Your task to perform on an android device: turn pop-ups off in chrome Image 0: 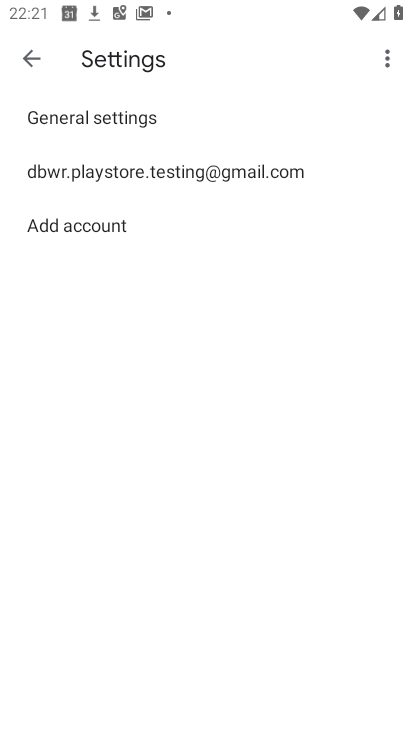
Step 0: press home button
Your task to perform on an android device: turn pop-ups off in chrome Image 1: 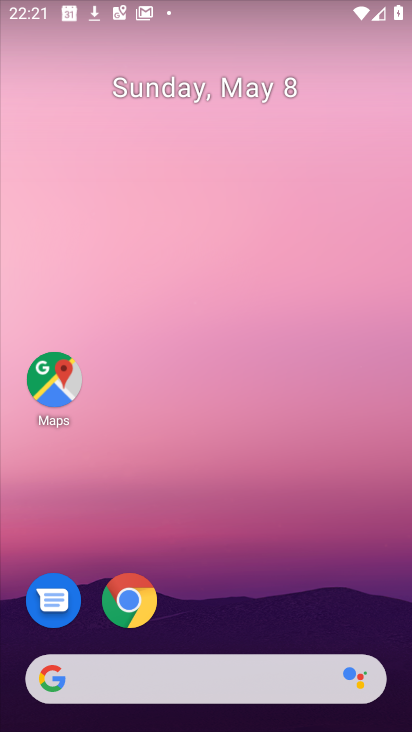
Step 1: drag from (270, 687) to (302, 213)
Your task to perform on an android device: turn pop-ups off in chrome Image 2: 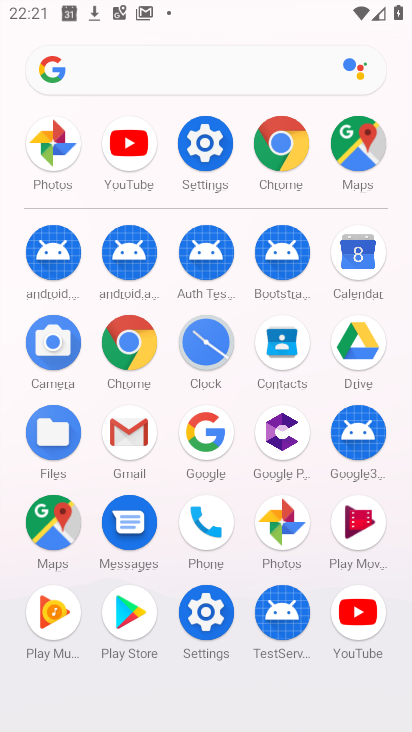
Step 2: click (282, 161)
Your task to perform on an android device: turn pop-ups off in chrome Image 3: 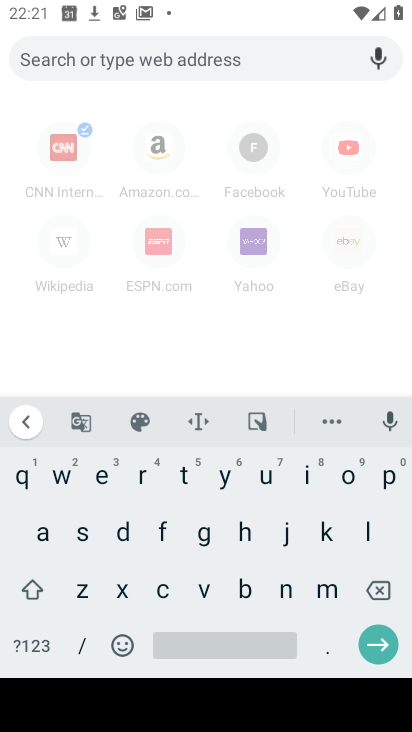
Step 3: click (166, 359)
Your task to perform on an android device: turn pop-ups off in chrome Image 4: 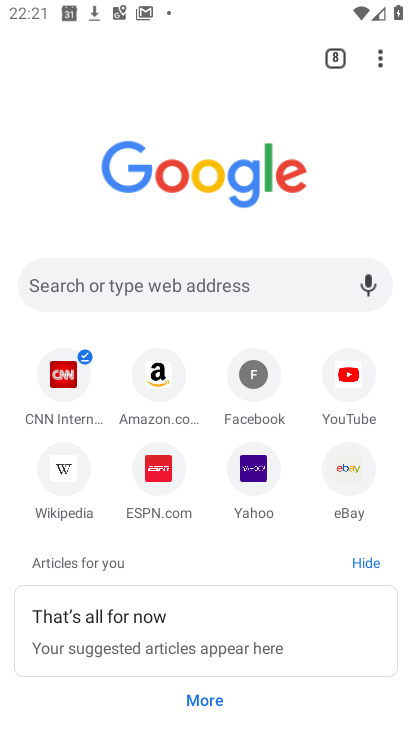
Step 4: click (387, 83)
Your task to perform on an android device: turn pop-ups off in chrome Image 5: 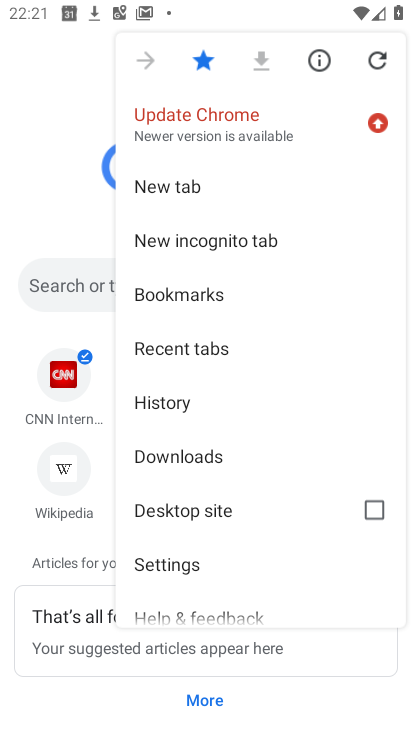
Step 5: click (219, 569)
Your task to perform on an android device: turn pop-ups off in chrome Image 6: 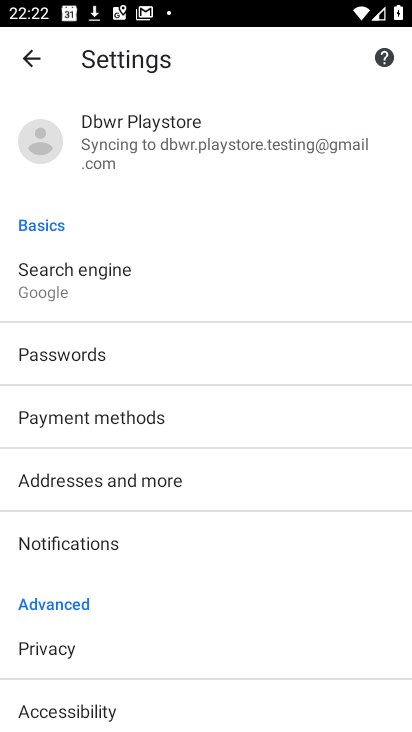
Step 6: drag from (165, 581) to (174, 416)
Your task to perform on an android device: turn pop-ups off in chrome Image 7: 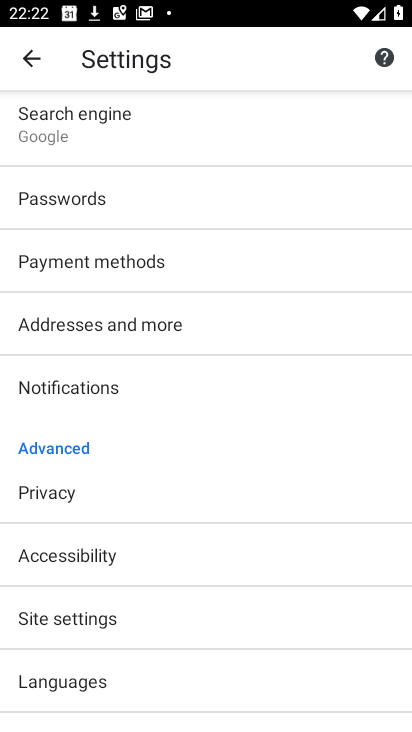
Step 7: click (89, 618)
Your task to perform on an android device: turn pop-ups off in chrome Image 8: 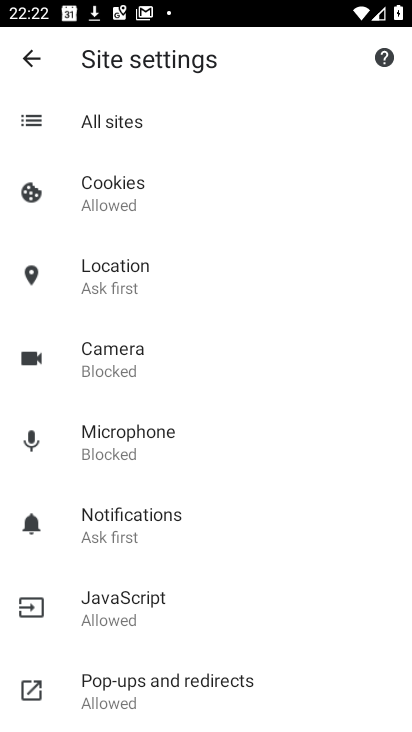
Step 8: click (171, 681)
Your task to perform on an android device: turn pop-ups off in chrome Image 9: 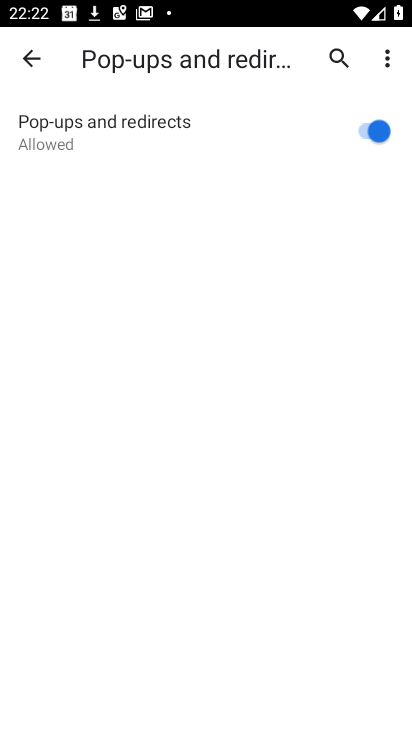
Step 9: click (286, 145)
Your task to perform on an android device: turn pop-ups off in chrome Image 10: 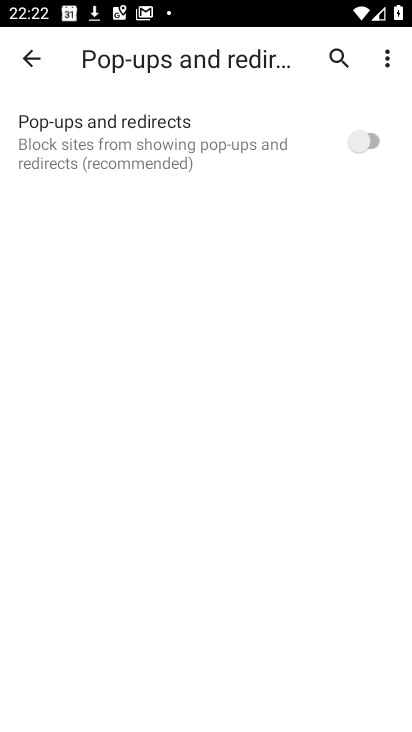
Step 10: task complete